Your task to perform on an android device: check storage Image 0: 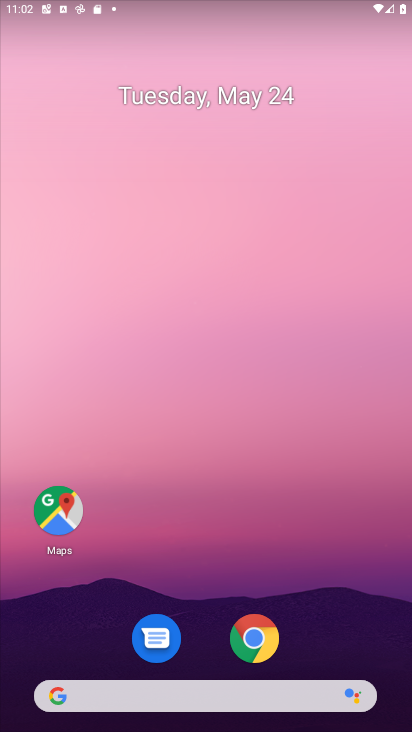
Step 0: drag from (208, 701) to (196, 111)
Your task to perform on an android device: check storage Image 1: 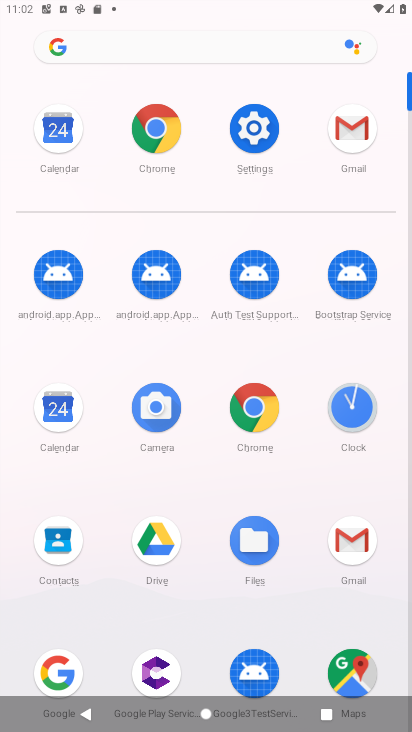
Step 1: click (249, 128)
Your task to perform on an android device: check storage Image 2: 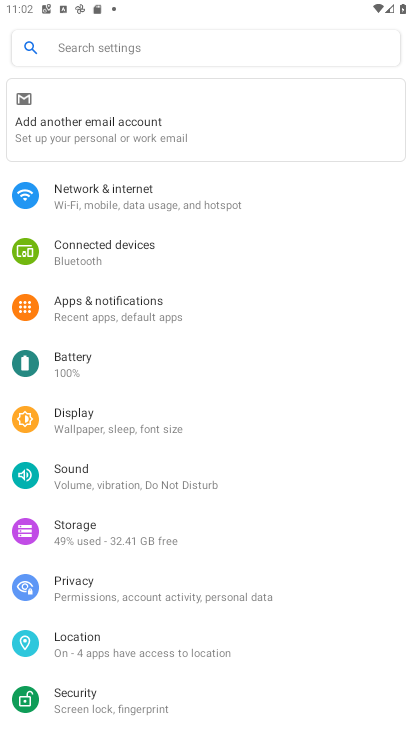
Step 2: click (100, 532)
Your task to perform on an android device: check storage Image 3: 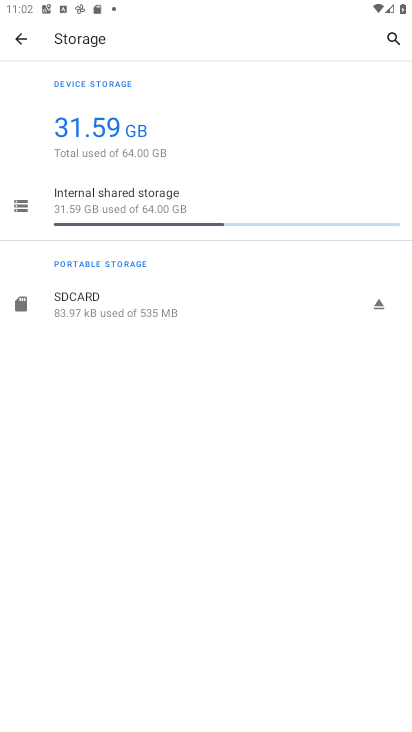
Step 3: task complete